Your task to perform on an android device: Open Google Chrome Image 0: 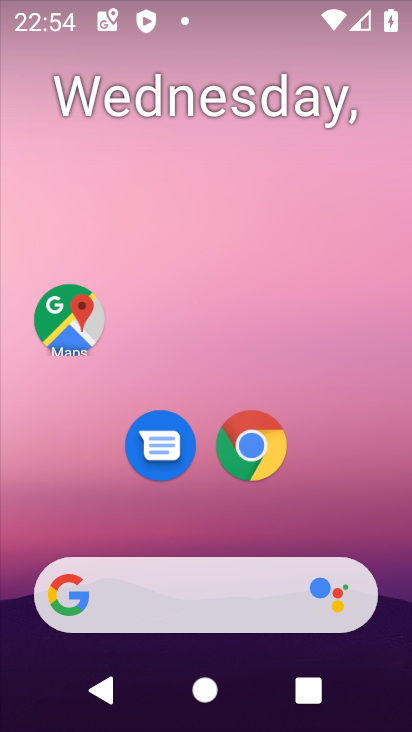
Step 0: drag from (306, 517) to (315, 180)
Your task to perform on an android device: Open Google Chrome Image 1: 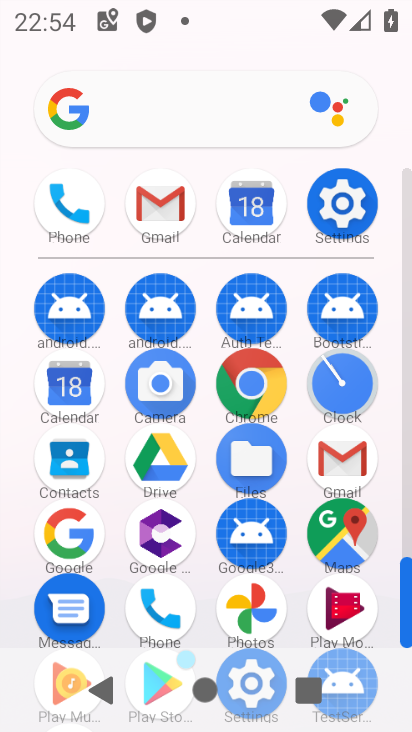
Step 1: click (67, 527)
Your task to perform on an android device: Open Google Chrome Image 2: 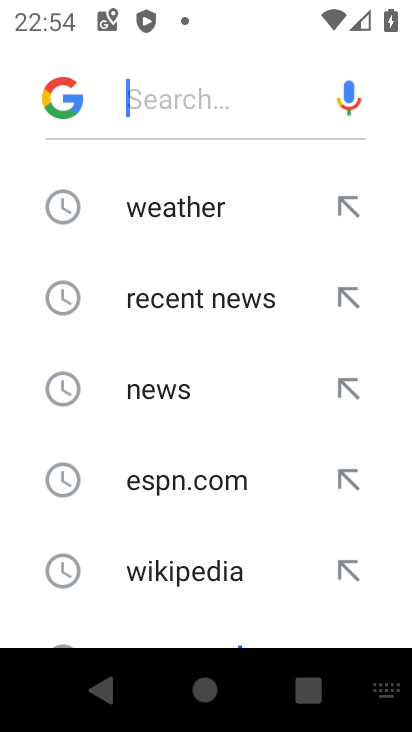
Step 2: task complete